Your task to perform on an android device: change the clock style Image 0: 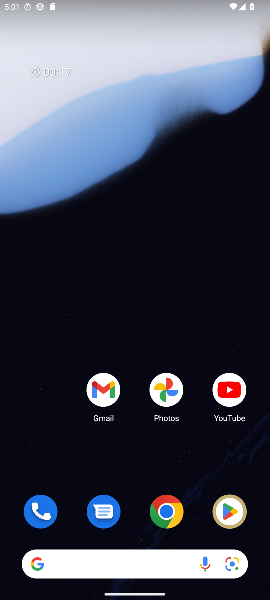
Step 0: drag from (141, 477) to (185, 23)
Your task to perform on an android device: change the clock style Image 1: 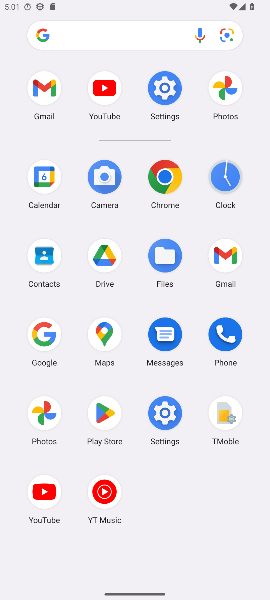
Step 1: click (233, 190)
Your task to perform on an android device: change the clock style Image 2: 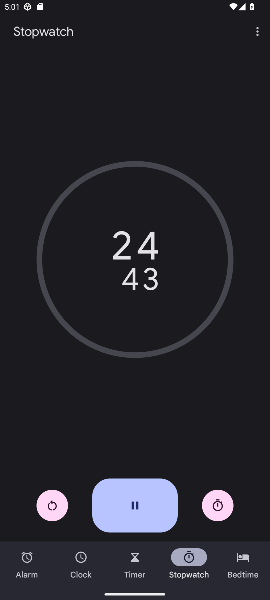
Step 2: click (52, 509)
Your task to perform on an android device: change the clock style Image 3: 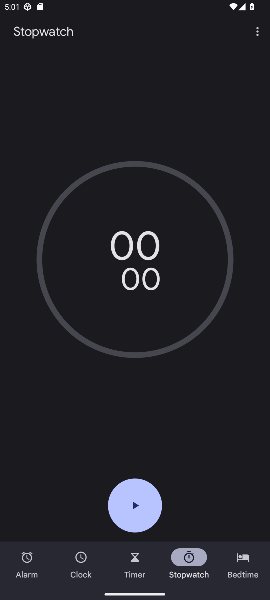
Step 3: click (256, 34)
Your task to perform on an android device: change the clock style Image 4: 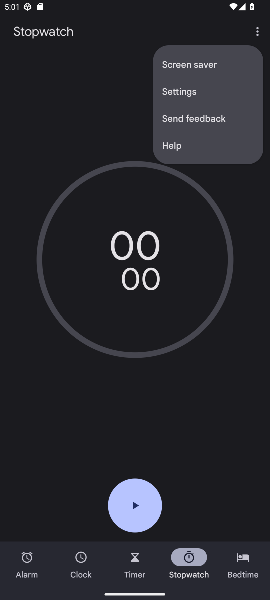
Step 4: click (192, 97)
Your task to perform on an android device: change the clock style Image 5: 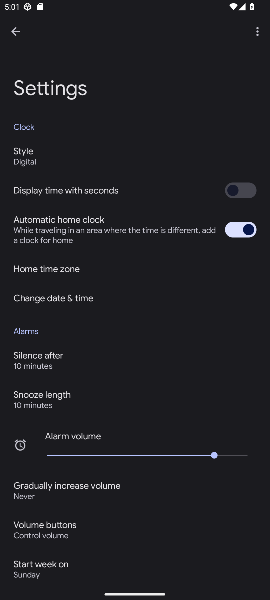
Step 5: click (40, 154)
Your task to perform on an android device: change the clock style Image 6: 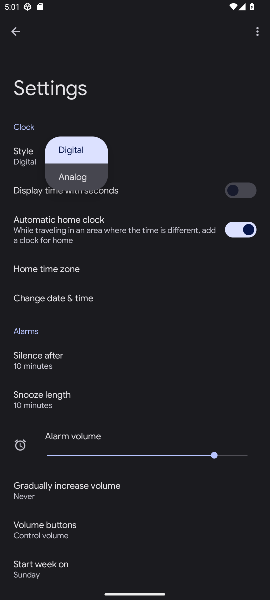
Step 6: click (77, 174)
Your task to perform on an android device: change the clock style Image 7: 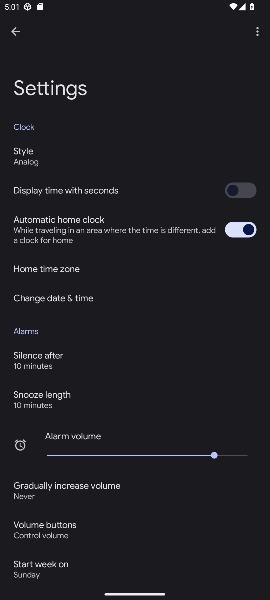
Step 7: task complete